Your task to perform on an android device: turn vacation reply on in the gmail app Image 0: 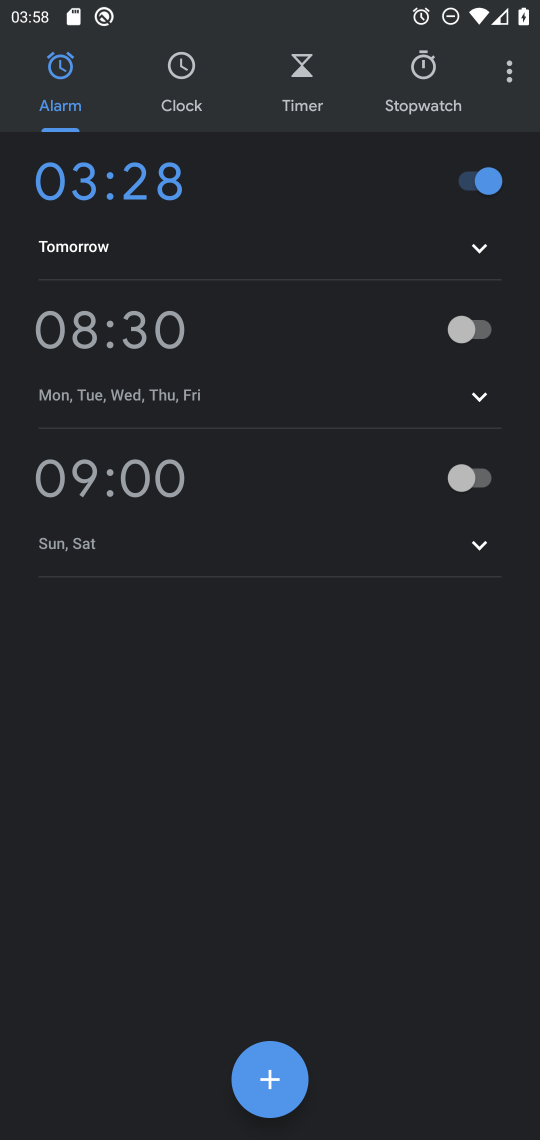
Step 0: press home button
Your task to perform on an android device: turn vacation reply on in the gmail app Image 1: 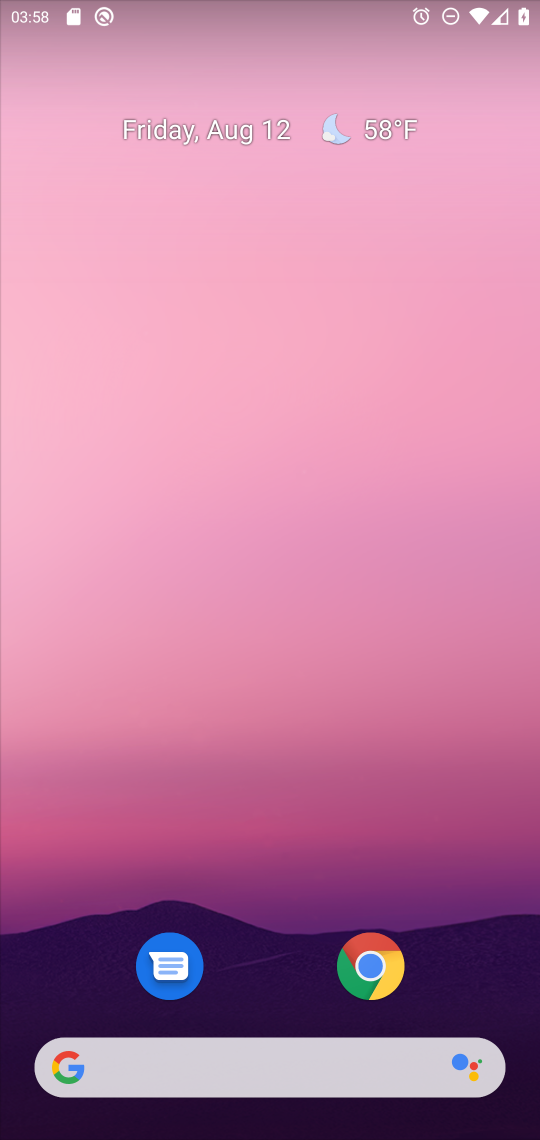
Step 1: drag from (275, 662) to (488, 11)
Your task to perform on an android device: turn vacation reply on in the gmail app Image 2: 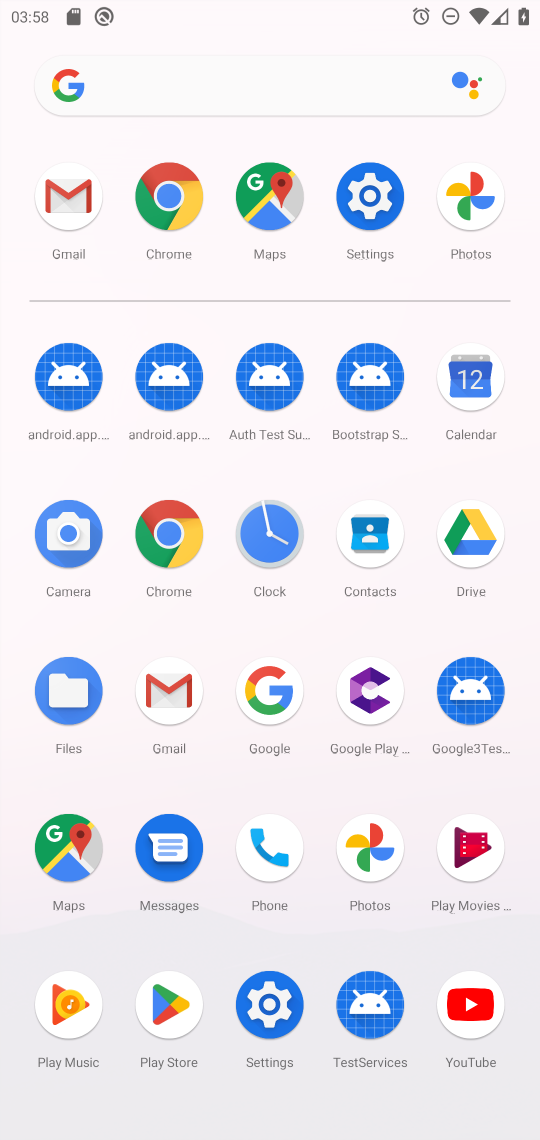
Step 2: click (171, 682)
Your task to perform on an android device: turn vacation reply on in the gmail app Image 3: 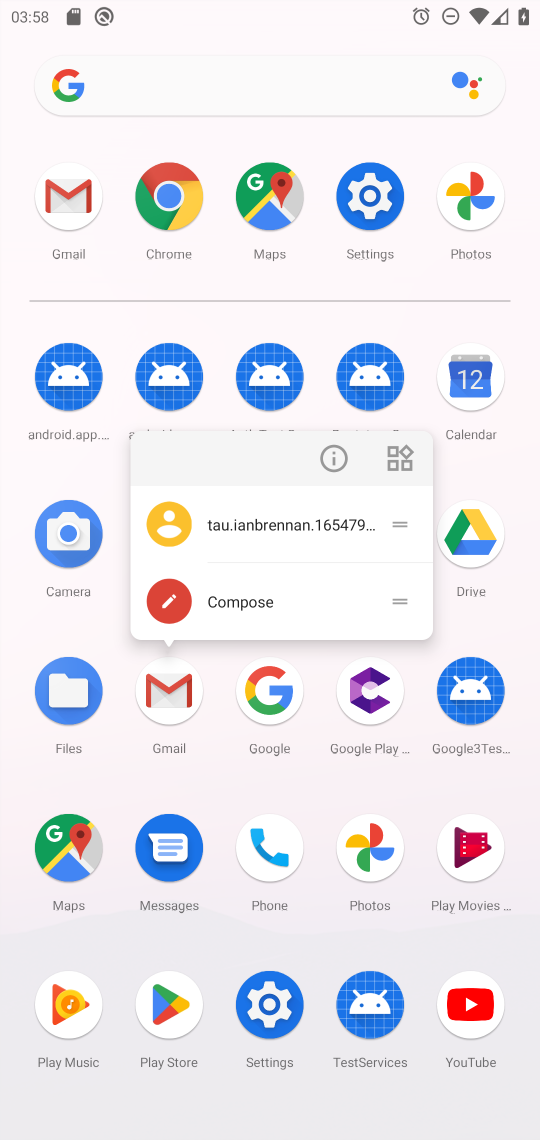
Step 3: click (166, 704)
Your task to perform on an android device: turn vacation reply on in the gmail app Image 4: 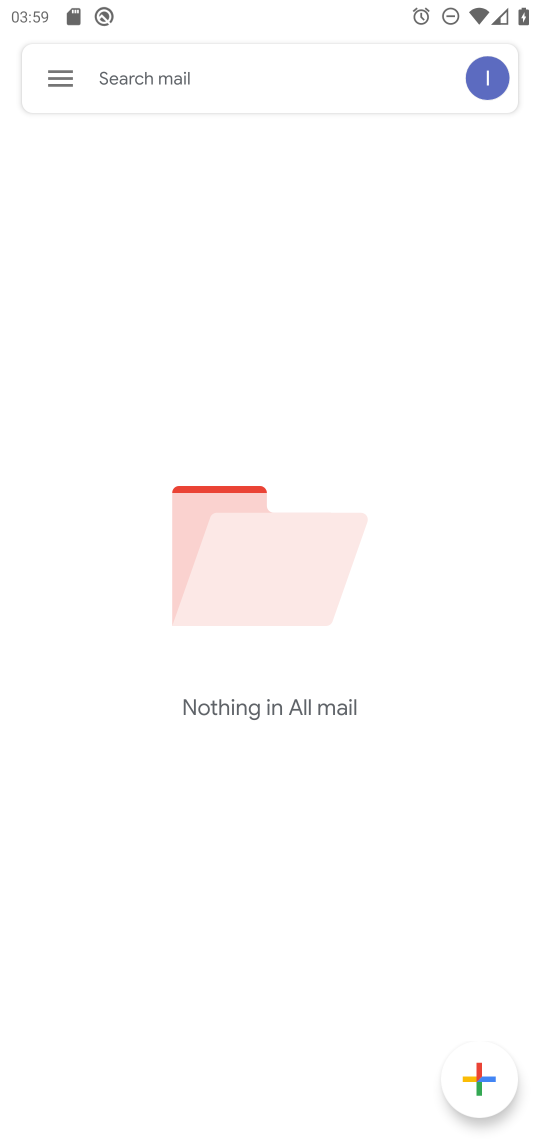
Step 4: click (65, 64)
Your task to perform on an android device: turn vacation reply on in the gmail app Image 5: 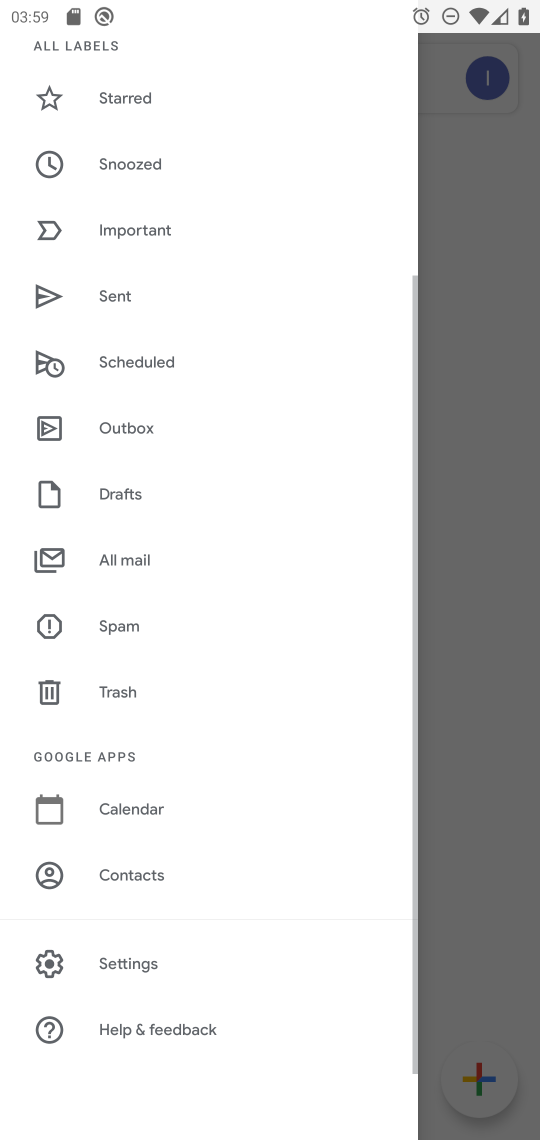
Step 5: click (104, 971)
Your task to perform on an android device: turn vacation reply on in the gmail app Image 6: 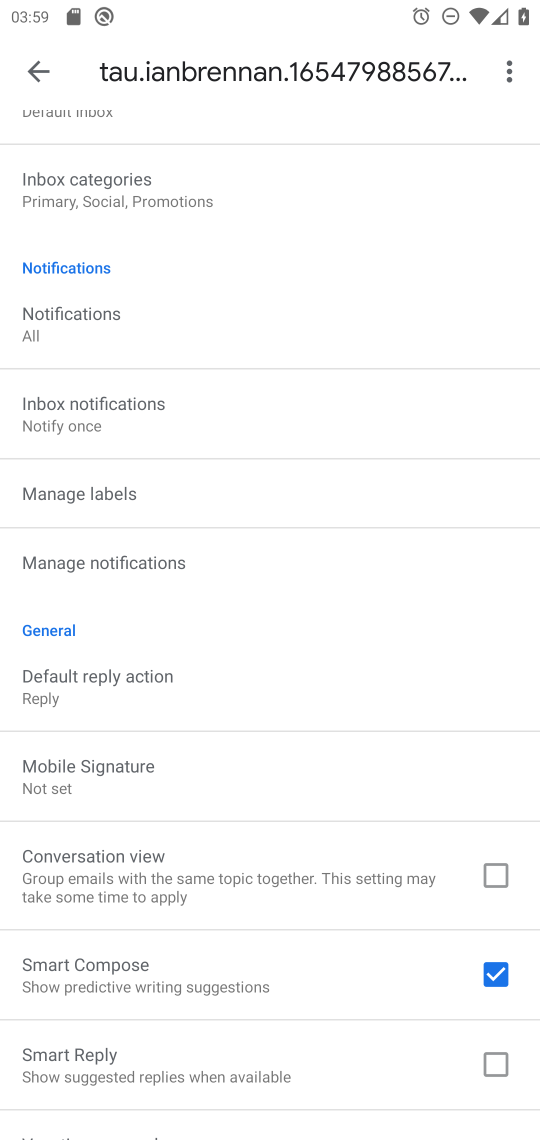
Step 6: drag from (227, 948) to (339, 324)
Your task to perform on an android device: turn vacation reply on in the gmail app Image 7: 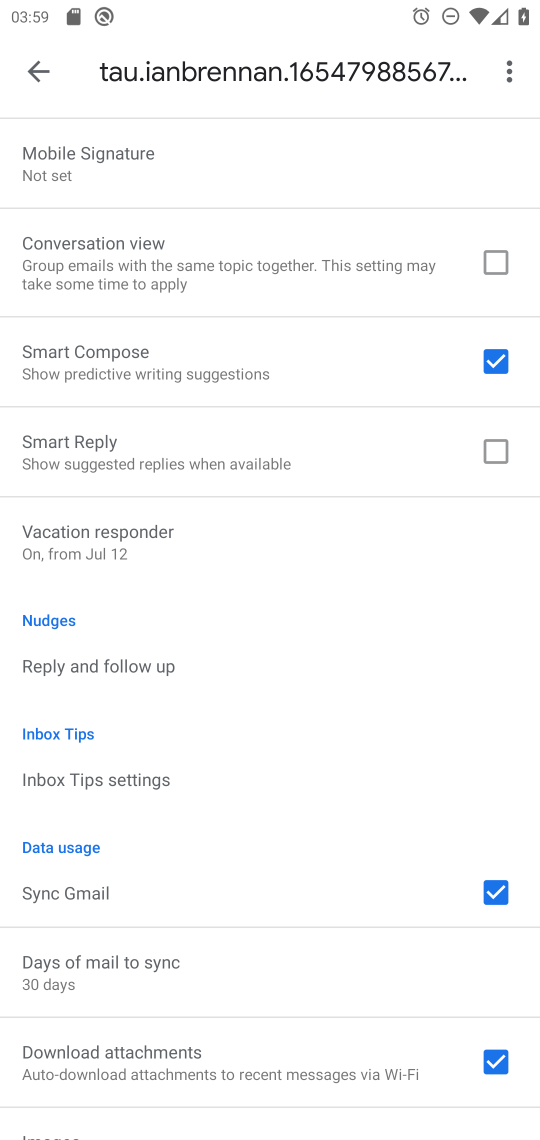
Step 7: click (236, 530)
Your task to perform on an android device: turn vacation reply on in the gmail app Image 8: 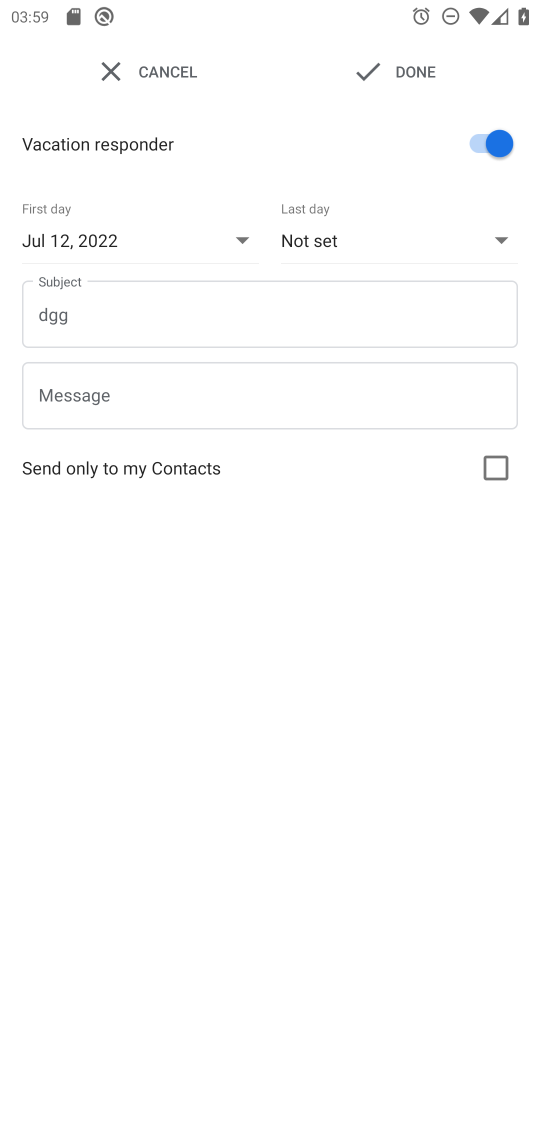
Step 8: task complete